Your task to perform on an android device: Search for acer predator on newegg, select the first entry, add it to the cart, then select checkout. Image 0: 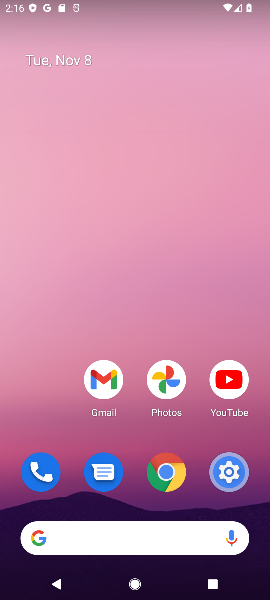
Step 0: click (96, 538)
Your task to perform on an android device: Search for acer predator on newegg, select the first entry, add it to the cart, then select checkout. Image 1: 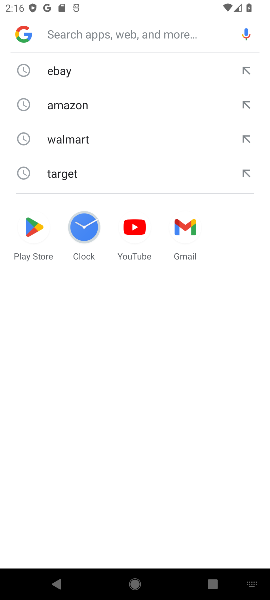
Step 1: type "newegg"
Your task to perform on an android device: Search for acer predator on newegg, select the first entry, add it to the cart, then select checkout. Image 2: 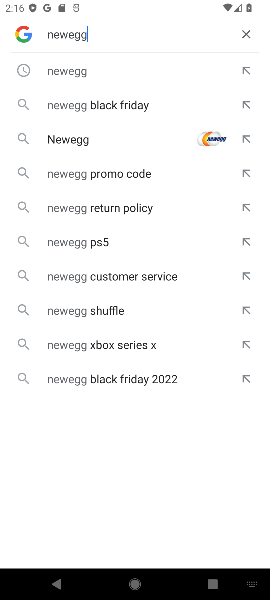
Step 2: click (88, 72)
Your task to perform on an android device: Search for acer predator on newegg, select the first entry, add it to the cart, then select checkout. Image 3: 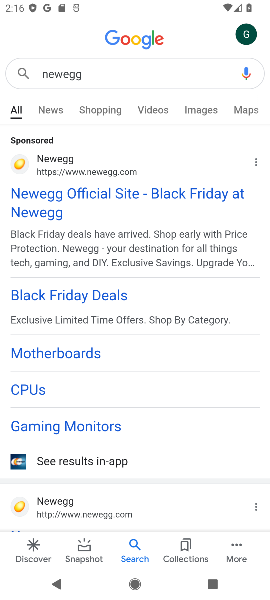
Step 3: click (82, 191)
Your task to perform on an android device: Search for acer predator on newegg, select the first entry, add it to the cart, then select checkout. Image 4: 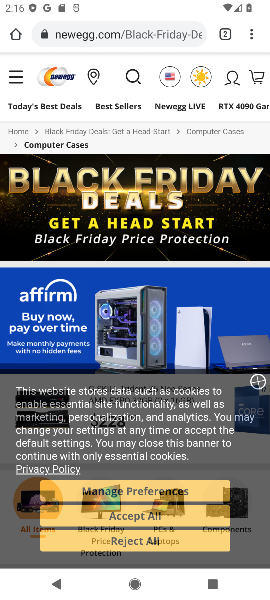
Step 4: drag from (121, 458) to (121, 251)
Your task to perform on an android device: Search for acer predator on newegg, select the first entry, add it to the cart, then select checkout. Image 5: 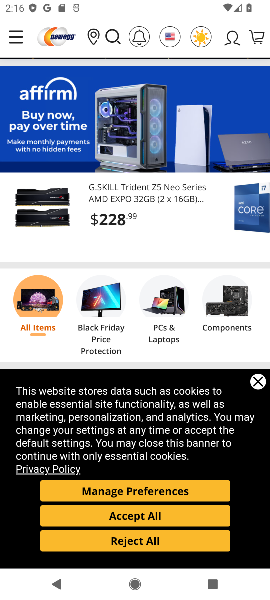
Step 5: click (153, 536)
Your task to perform on an android device: Search for acer predator on newegg, select the first entry, add it to the cart, then select checkout. Image 6: 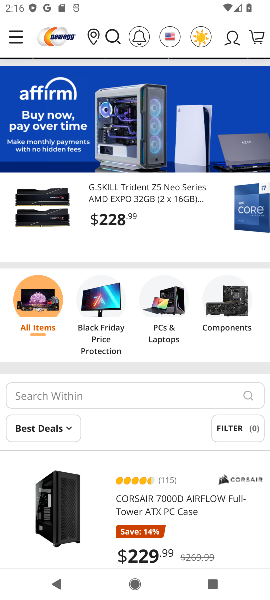
Step 6: task complete